Your task to perform on an android device: When is my next meeting? Image 0: 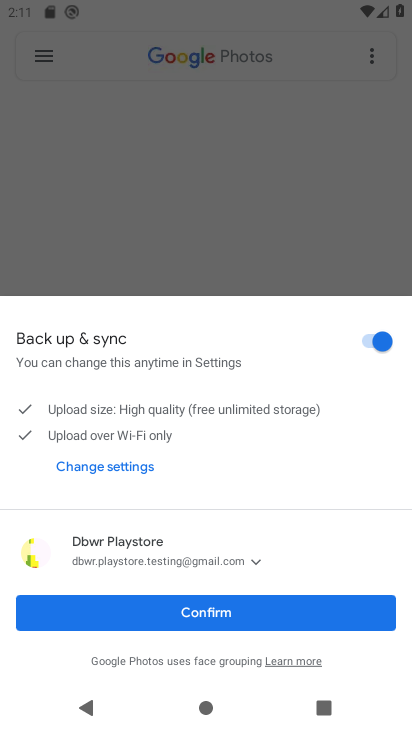
Step 0: press home button
Your task to perform on an android device: When is my next meeting? Image 1: 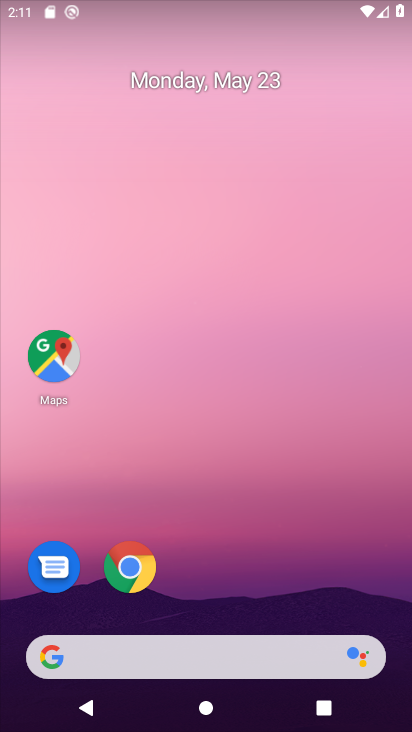
Step 1: drag from (188, 588) to (153, 214)
Your task to perform on an android device: When is my next meeting? Image 2: 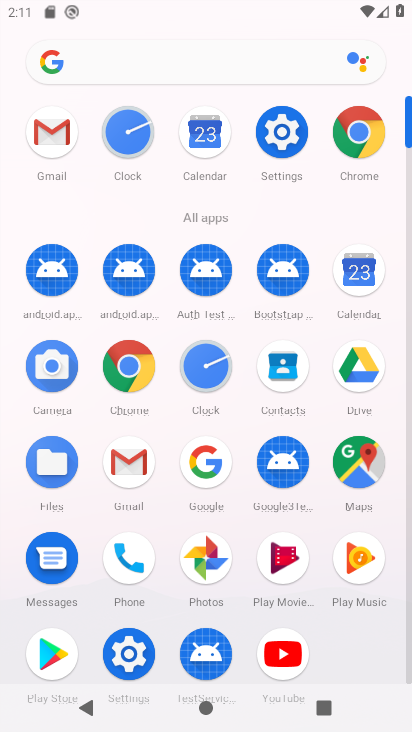
Step 2: click (362, 279)
Your task to perform on an android device: When is my next meeting? Image 3: 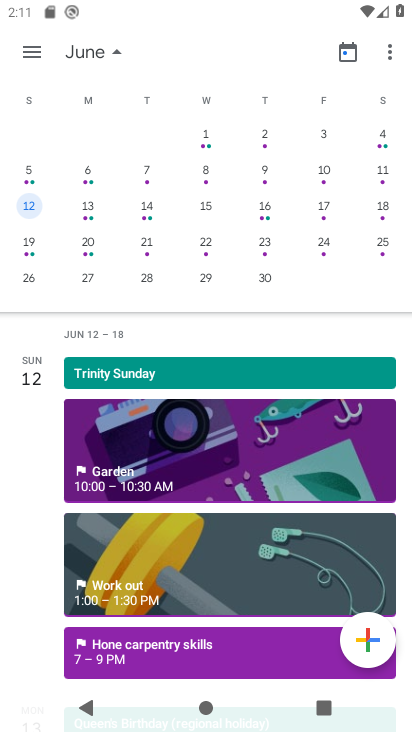
Step 3: task complete